Your task to perform on an android device: change the clock display to analog Image 0: 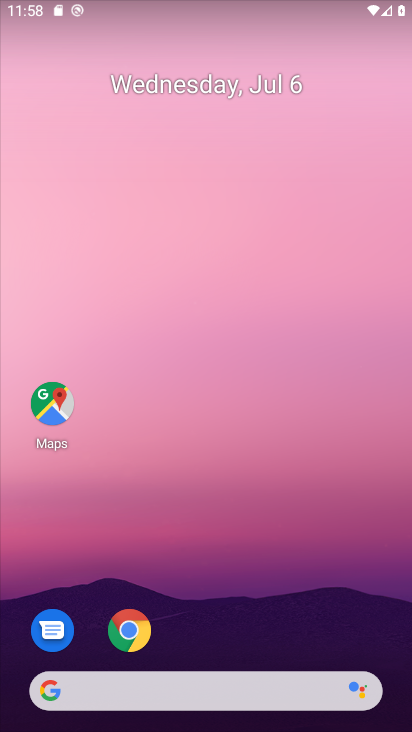
Step 0: drag from (253, 594) to (241, 176)
Your task to perform on an android device: change the clock display to analog Image 1: 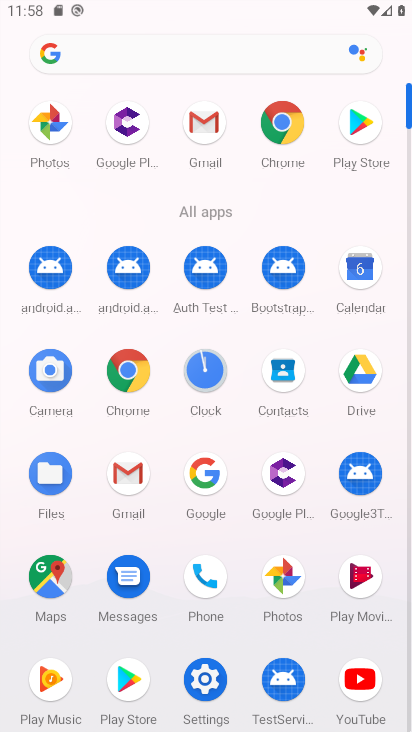
Step 1: click (220, 362)
Your task to perform on an android device: change the clock display to analog Image 2: 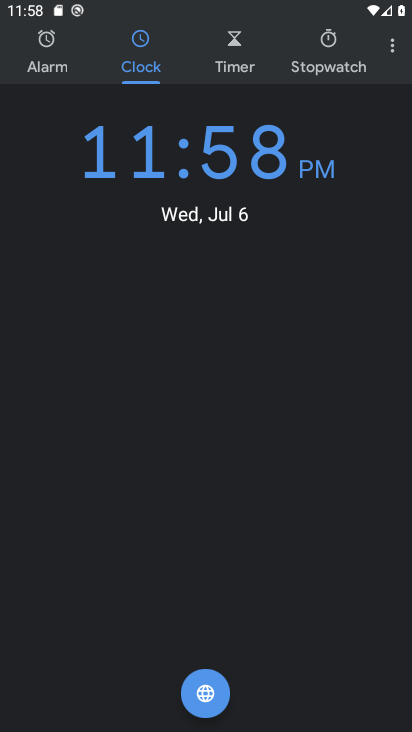
Step 2: click (390, 51)
Your task to perform on an android device: change the clock display to analog Image 3: 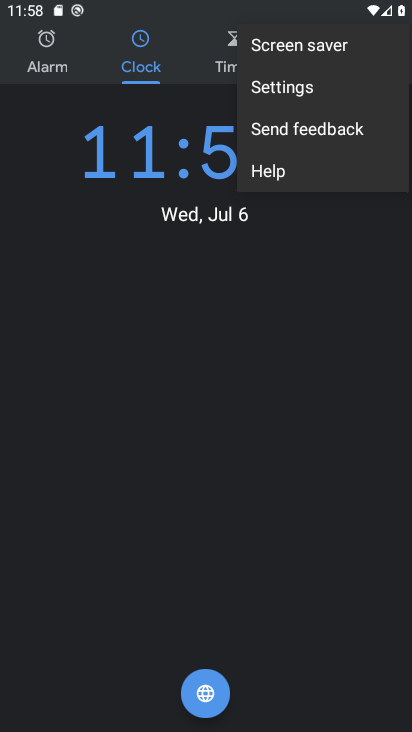
Step 3: click (315, 92)
Your task to perform on an android device: change the clock display to analog Image 4: 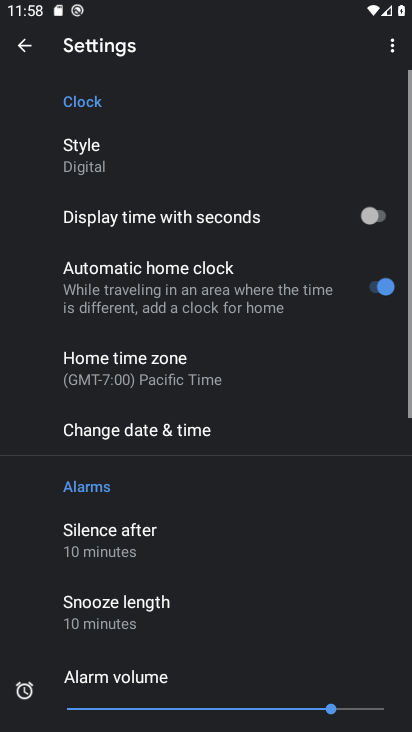
Step 4: click (130, 143)
Your task to perform on an android device: change the clock display to analog Image 5: 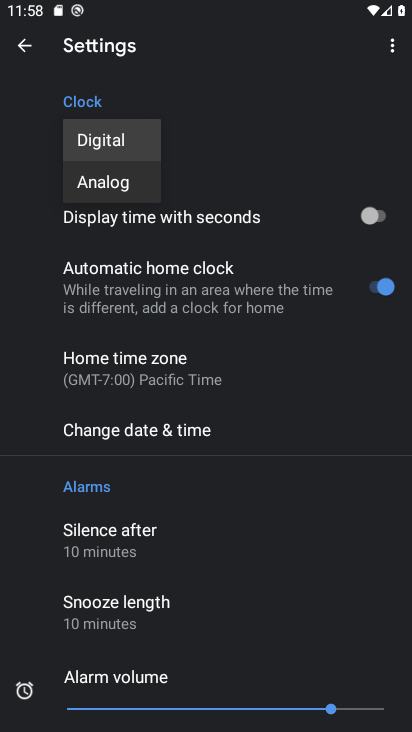
Step 5: click (124, 173)
Your task to perform on an android device: change the clock display to analog Image 6: 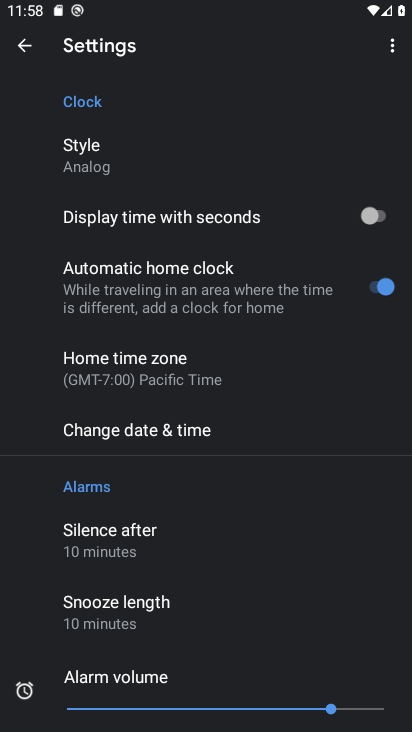
Step 6: task complete